Your task to perform on an android device: toggle data saver in the chrome app Image 0: 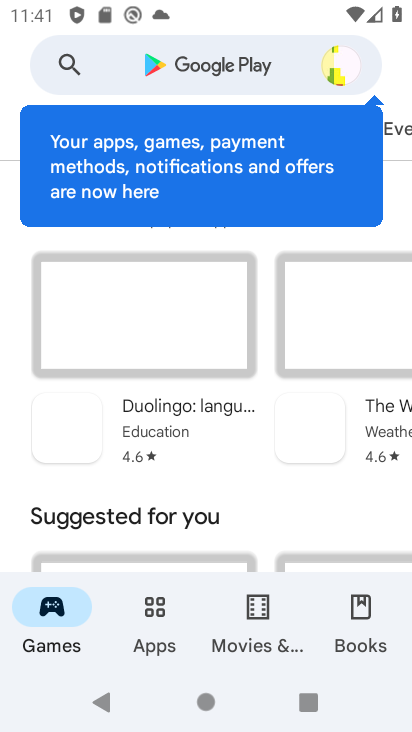
Step 0: press home button
Your task to perform on an android device: toggle data saver in the chrome app Image 1: 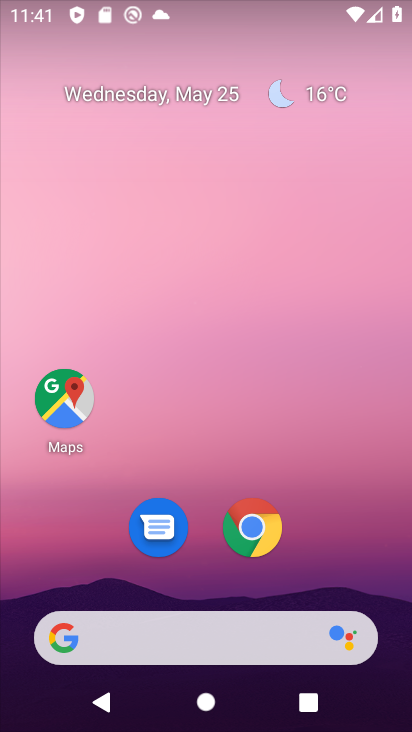
Step 1: click (268, 522)
Your task to perform on an android device: toggle data saver in the chrome app Image 2: 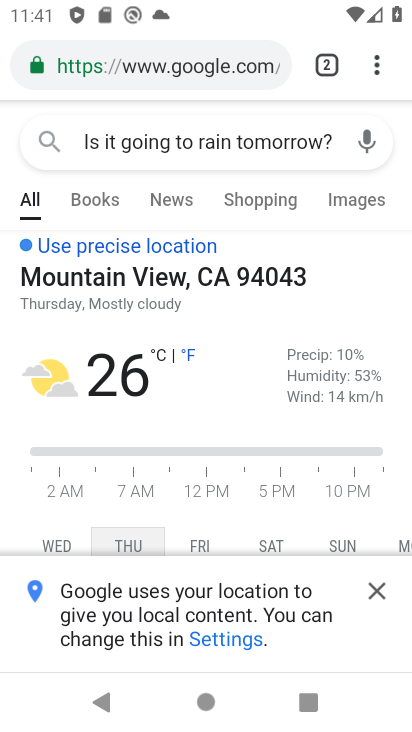
Step 2: drag from (359, 59) to (187, 597)
Your task to perform on an android device: toggle data saver in the chrome app Image 3: 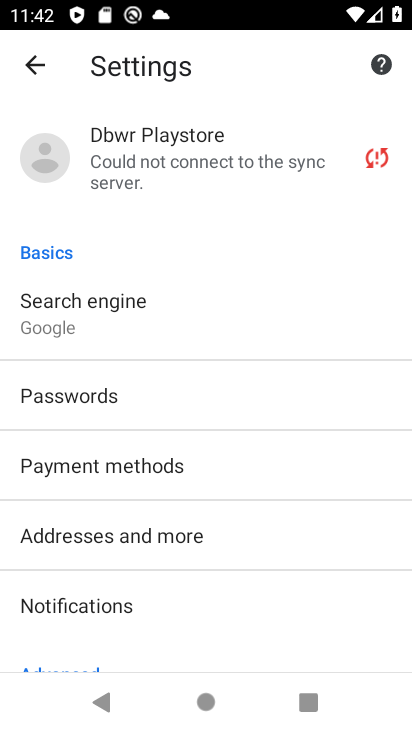
Step 3: drag from (187, 587) to (180, 22)
Your task to perform on an android device: toggle data saver in the chrome app Image 4: 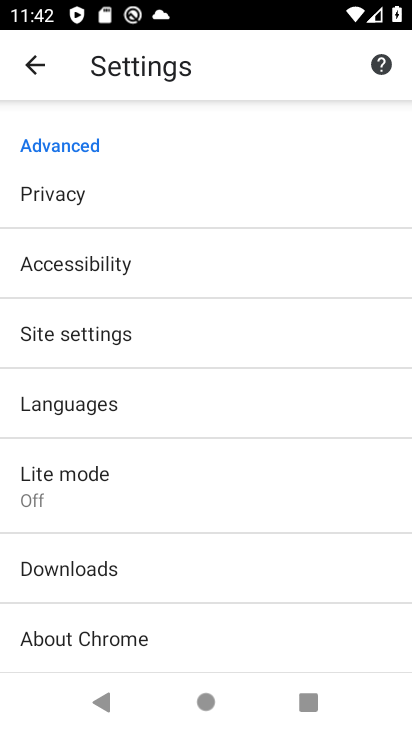
Step 4: click (152, 460)
Your task to perform on an android device: toggle data saver in the chrome app Image 5: 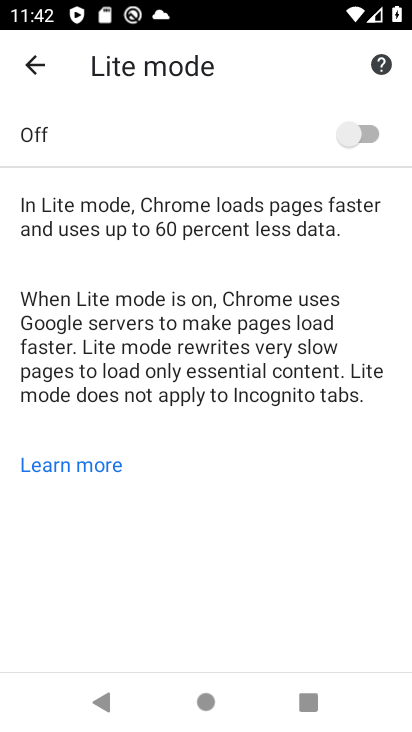
Step 5: click (301, 145)
Your task to perform on an android device: toggle data saver in the chrome app Image 6: 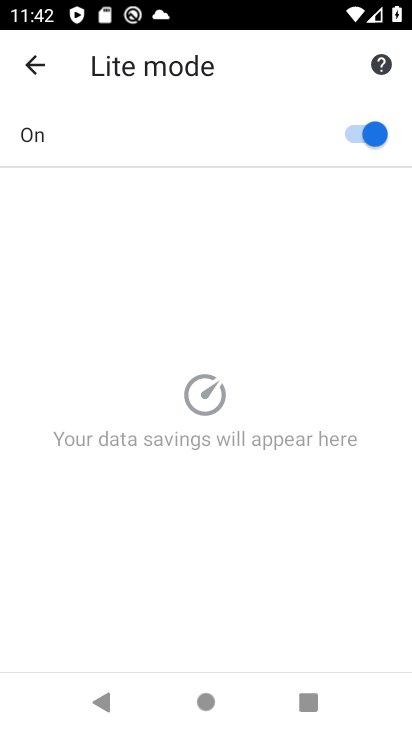
Step 6: task complete